Your task to perform on an android device: Open Amazon Image 0: 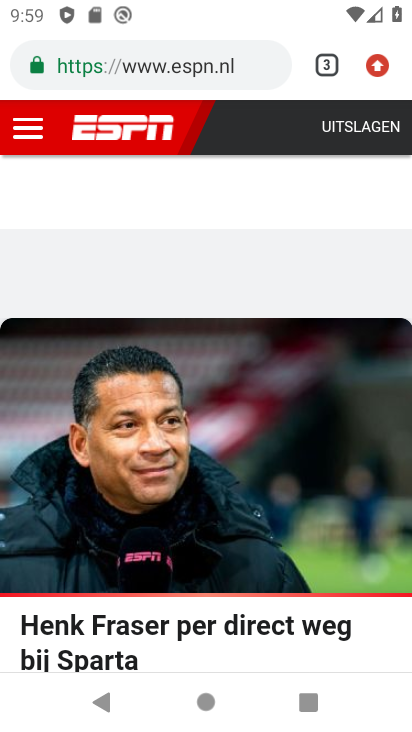
Step 0: click (336, 67)
Your task to perform on an android device: Open Amazon Image 1: 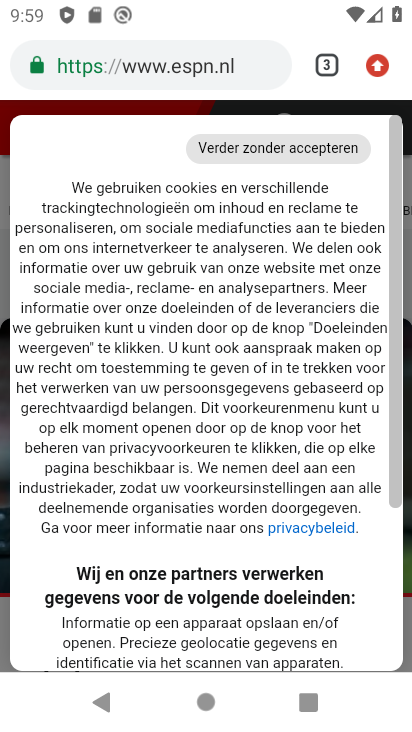
Step 1: click (328, 68)
Your task to perform on an android device: Open Amazon Image 2: 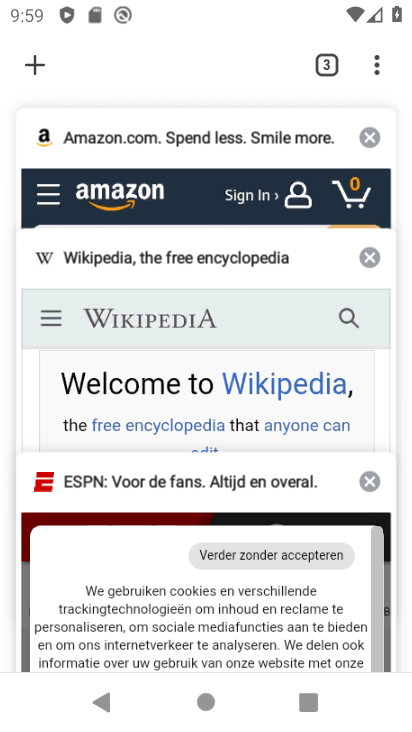
Step 2: click (129, 135)
Your task to perform on an android device: Open Amazon Image 3: 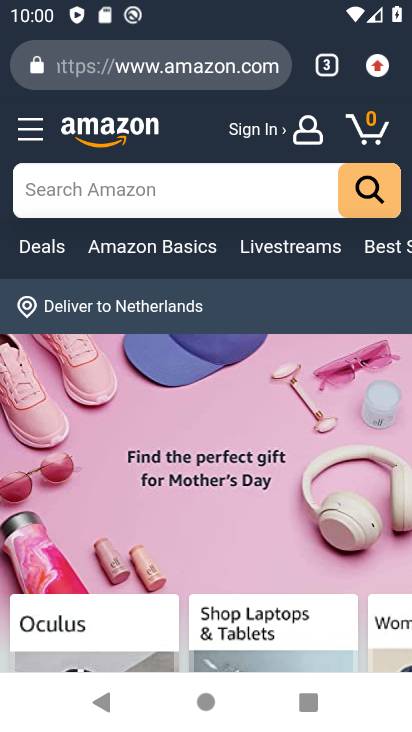
Step 3: task complete